Your task to perform on an android device: Search for "macbook" on ebay, select the first entry, and add it to the cart. Image 0: 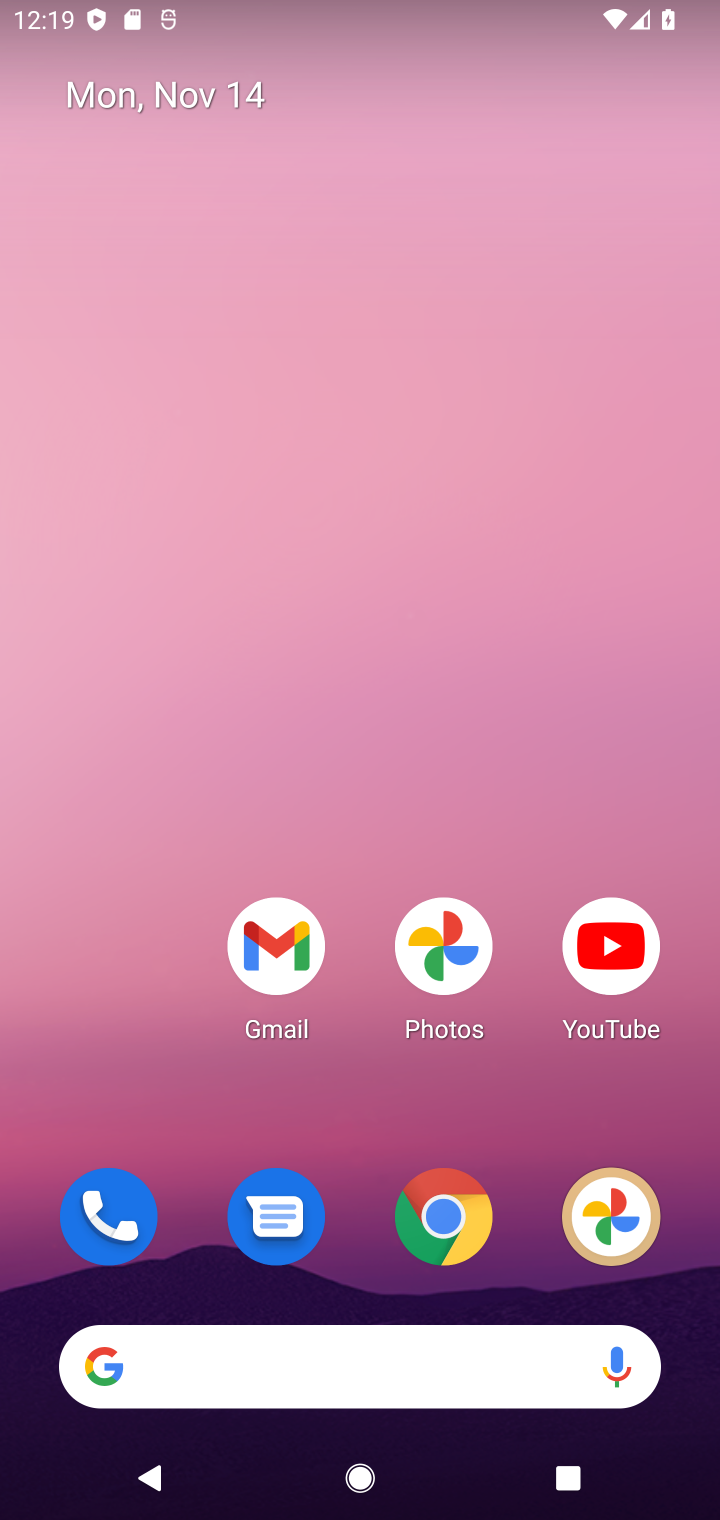
Step 0: click (466, 1212)
Your task to perform on an android device: Search for "macbook" on ebay, select the first entry, and add it to the cart. Image 1: 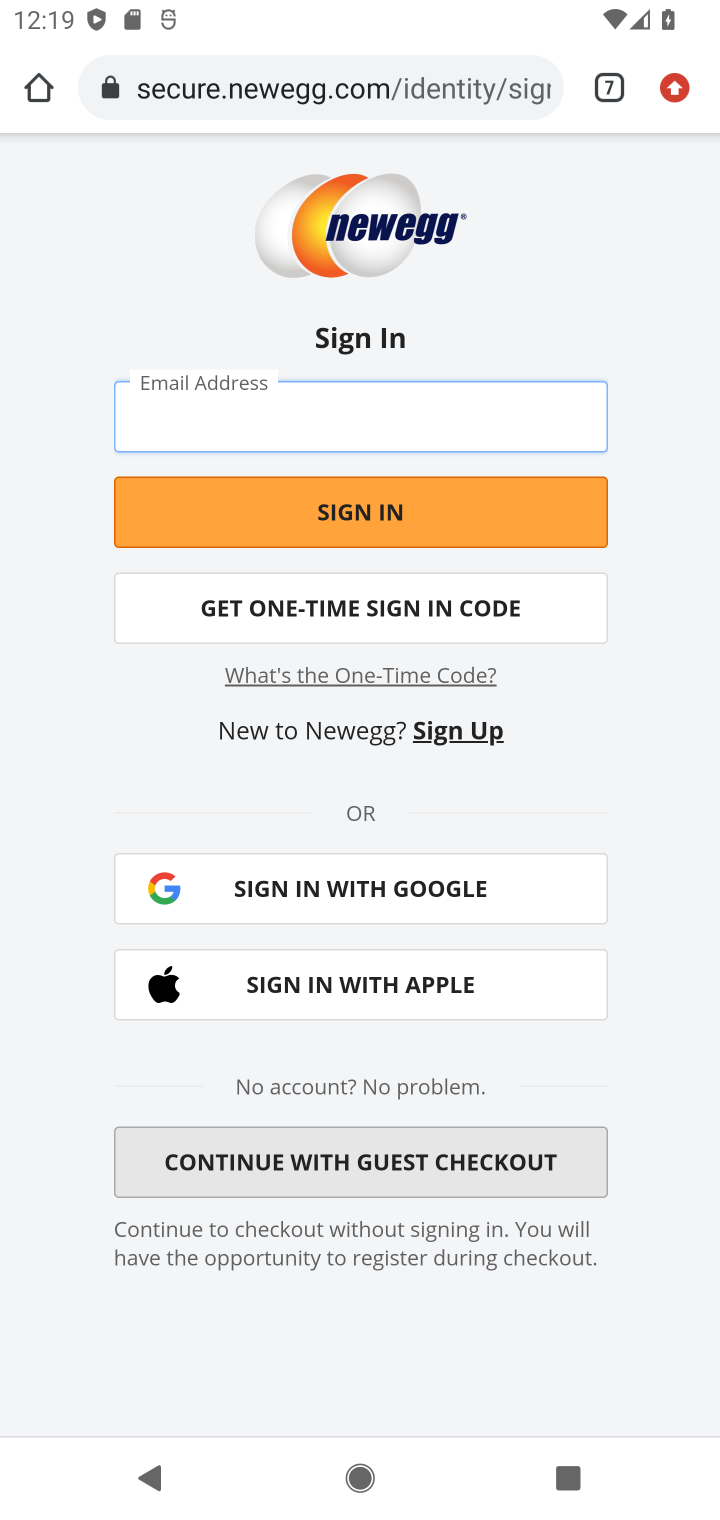
Step 1: click (608, 80)
Your task to perform on an android device: Search for "macbook" on ebay, select the first entry, and add it to the cart. Image 2: 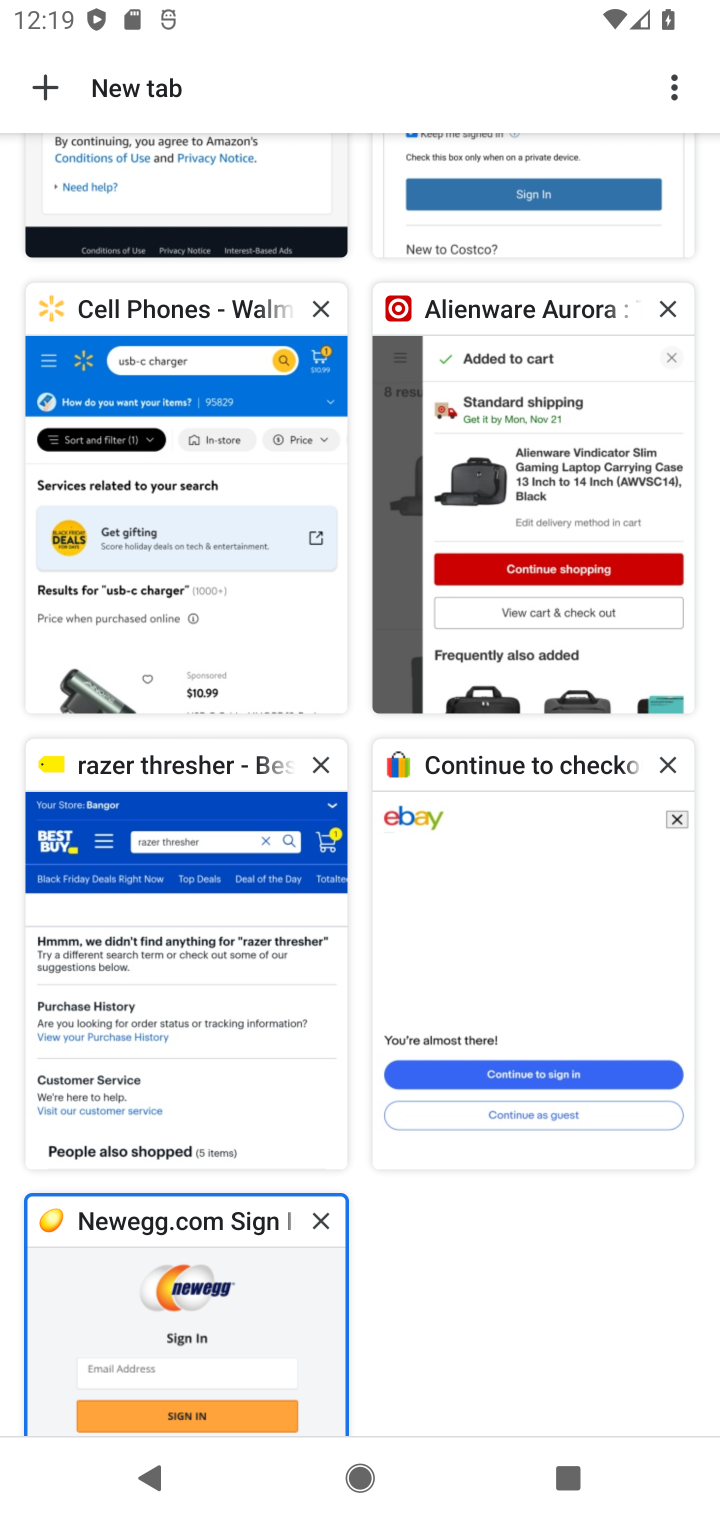
Step 2: click (496, 821)
Your task to perform on an android device: Search for "macbook" on ebay, select the first entry, and add it to the cart. Image 3: 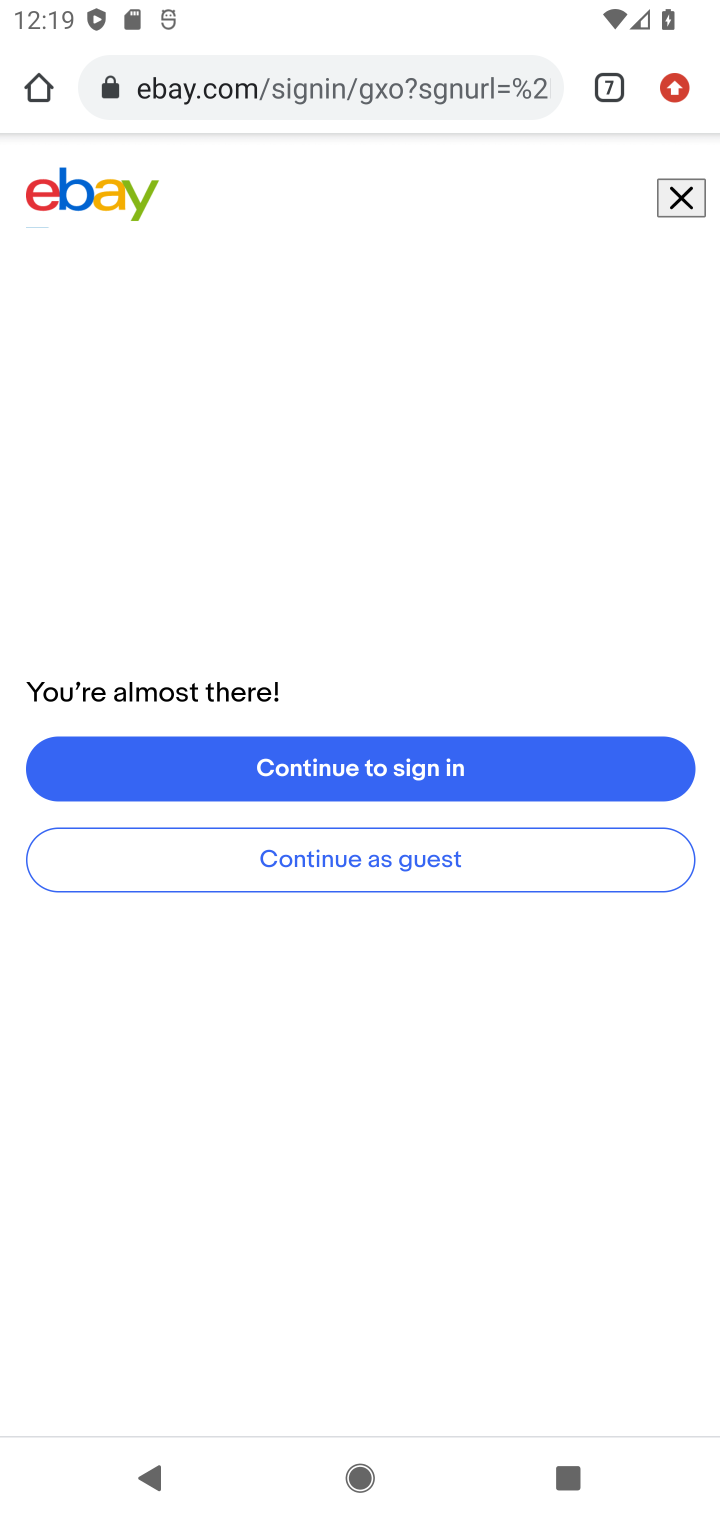
Step 3: click (693, 183)
Your task to perform on an android device: Search for "macbook" on ebay, select the first entry, and add it to the cart. Image 4: 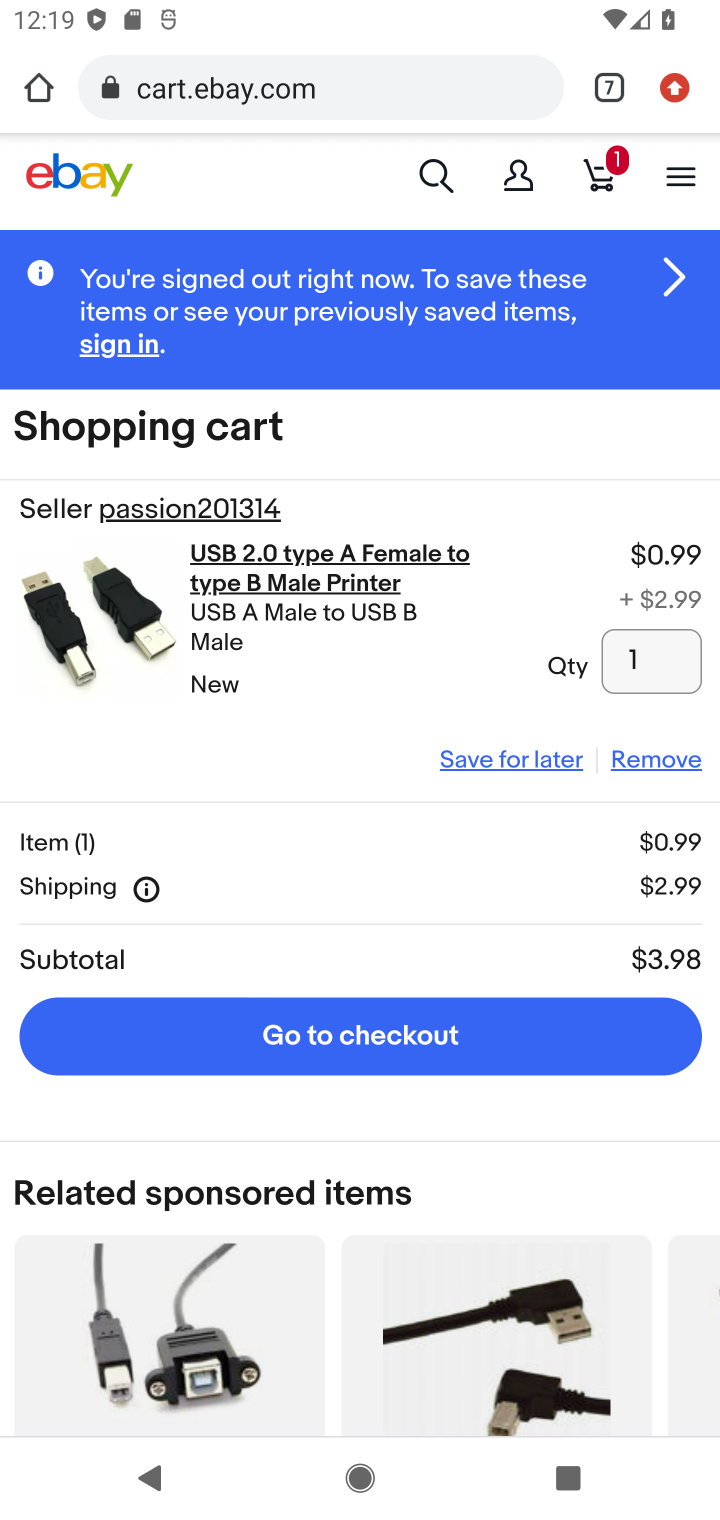
Step 4: click (437, 173)
Your task to perform on an android device: Search for "macbook" on ebay, select the first entry, and add it to the cart. Image 5: 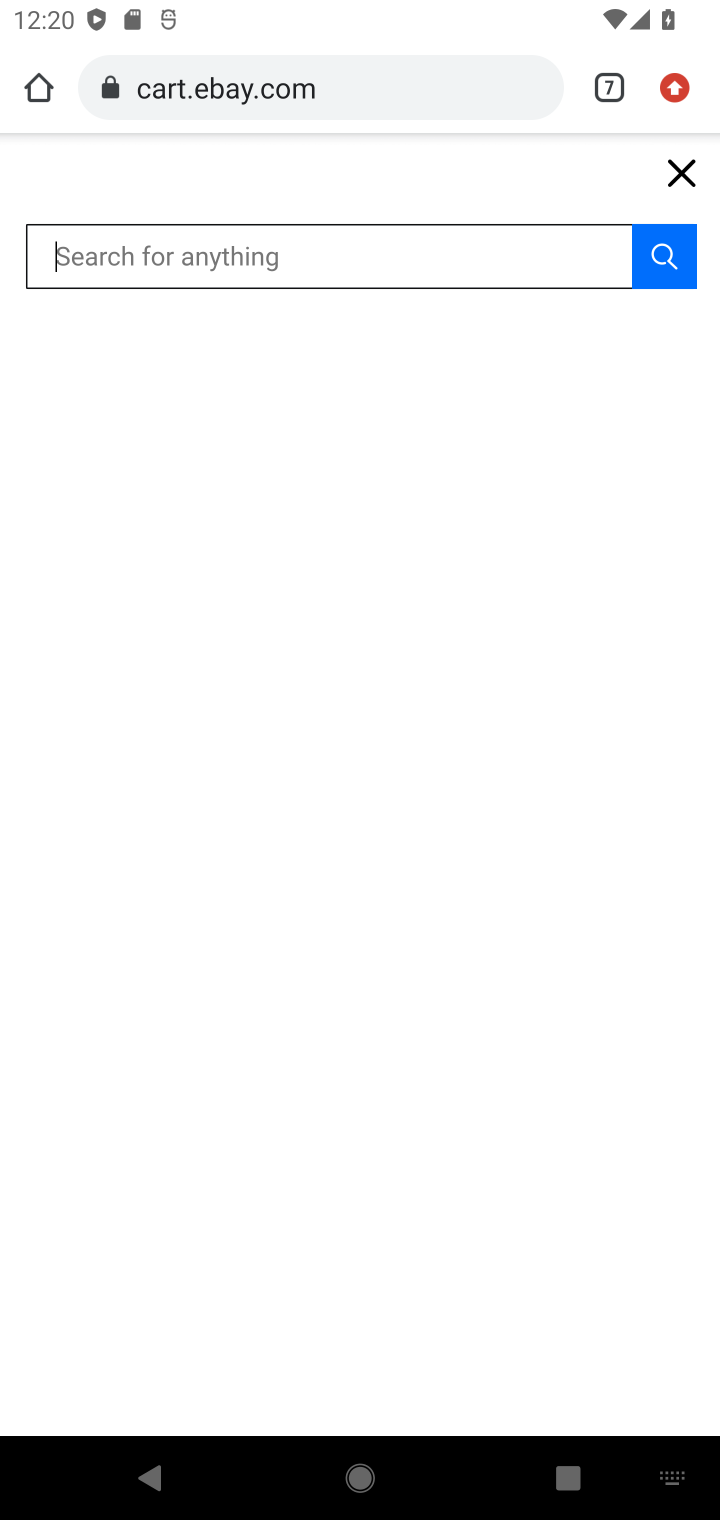
Step 5: type "macbook"
Your task to perform on an android device: Search for "macbook" on ebay, select the first entry, and add it to the cart. Image 6: 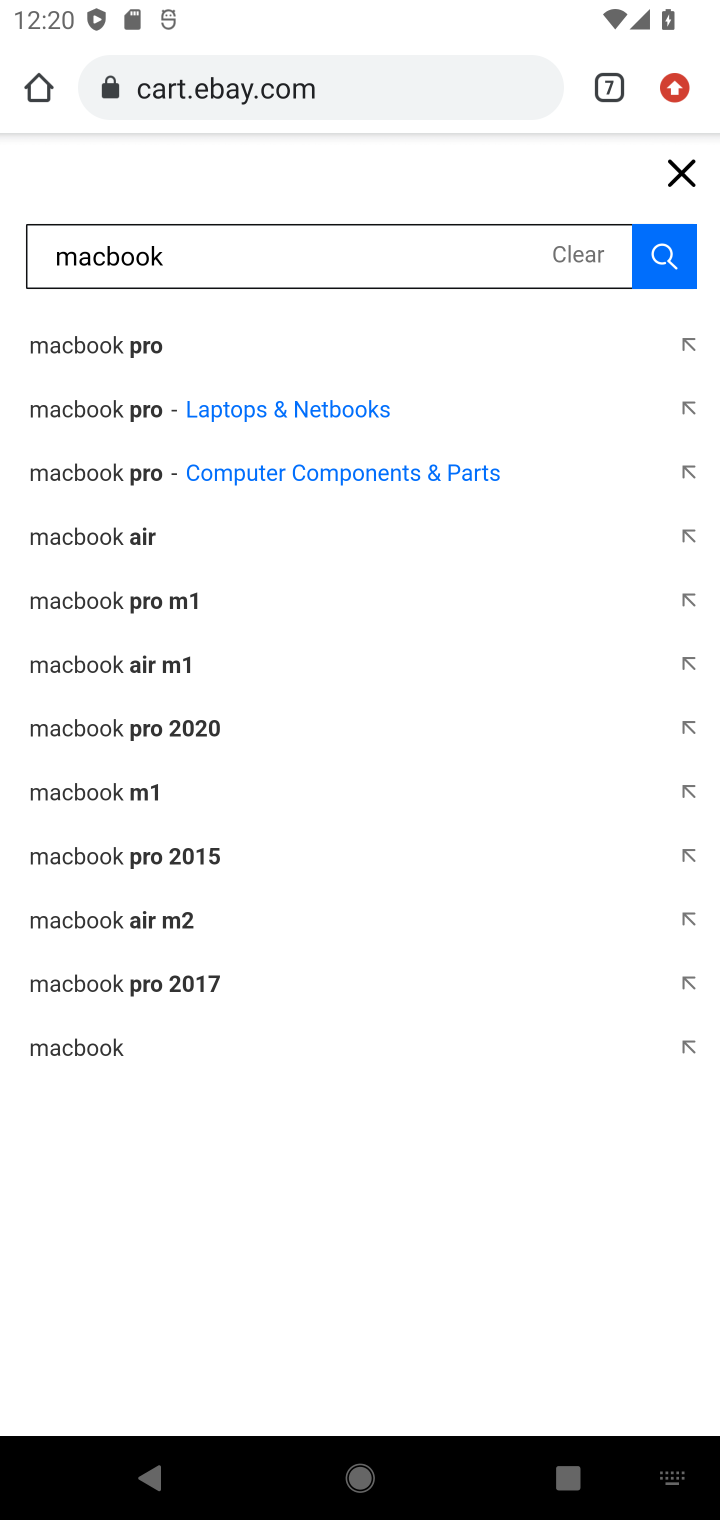
Step 6: click (115, 420)
Your task to perform on an android device: Search for "macbook" on ebay, select the first entry, and add it to the cart. Image 7: 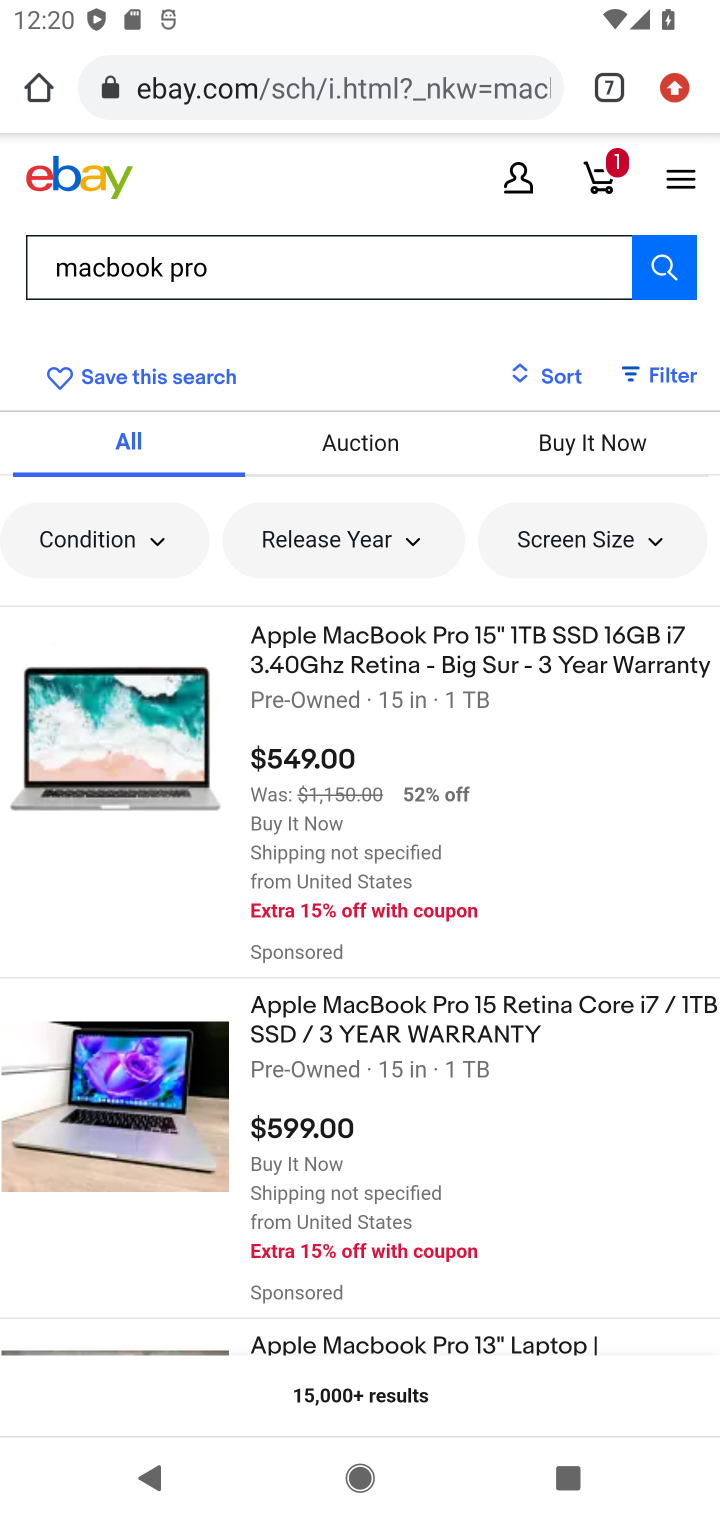
Step 7: click (417, 660)
Your task to perform on an android device: Search for "macbook" on ebay, select the first entry, and add it to the cart. Image 8: 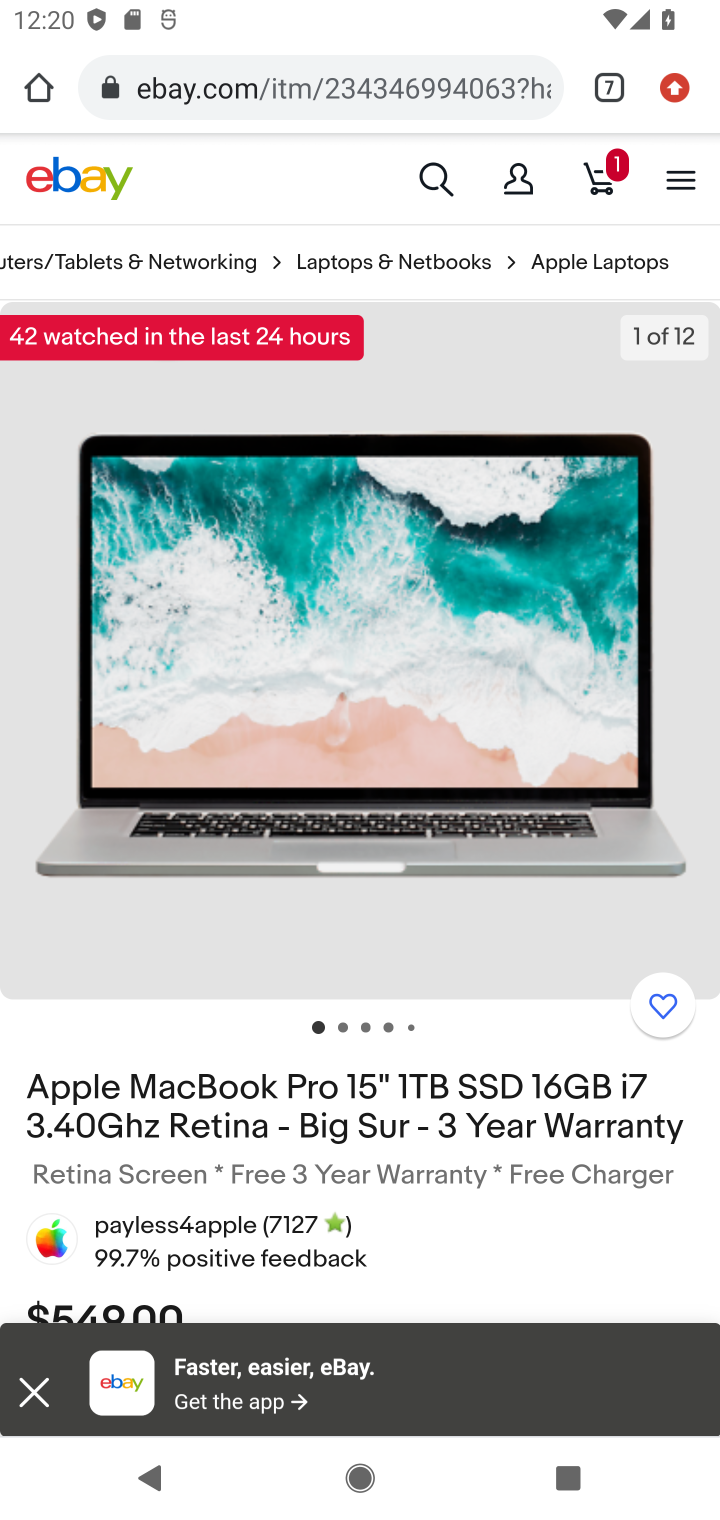
Step 8: drag from (495, 1255) to (511, 329)
Your task to perform on an android device: Search for "macbook" on ebay, select the first entry, and add it to the cart. Image 9: 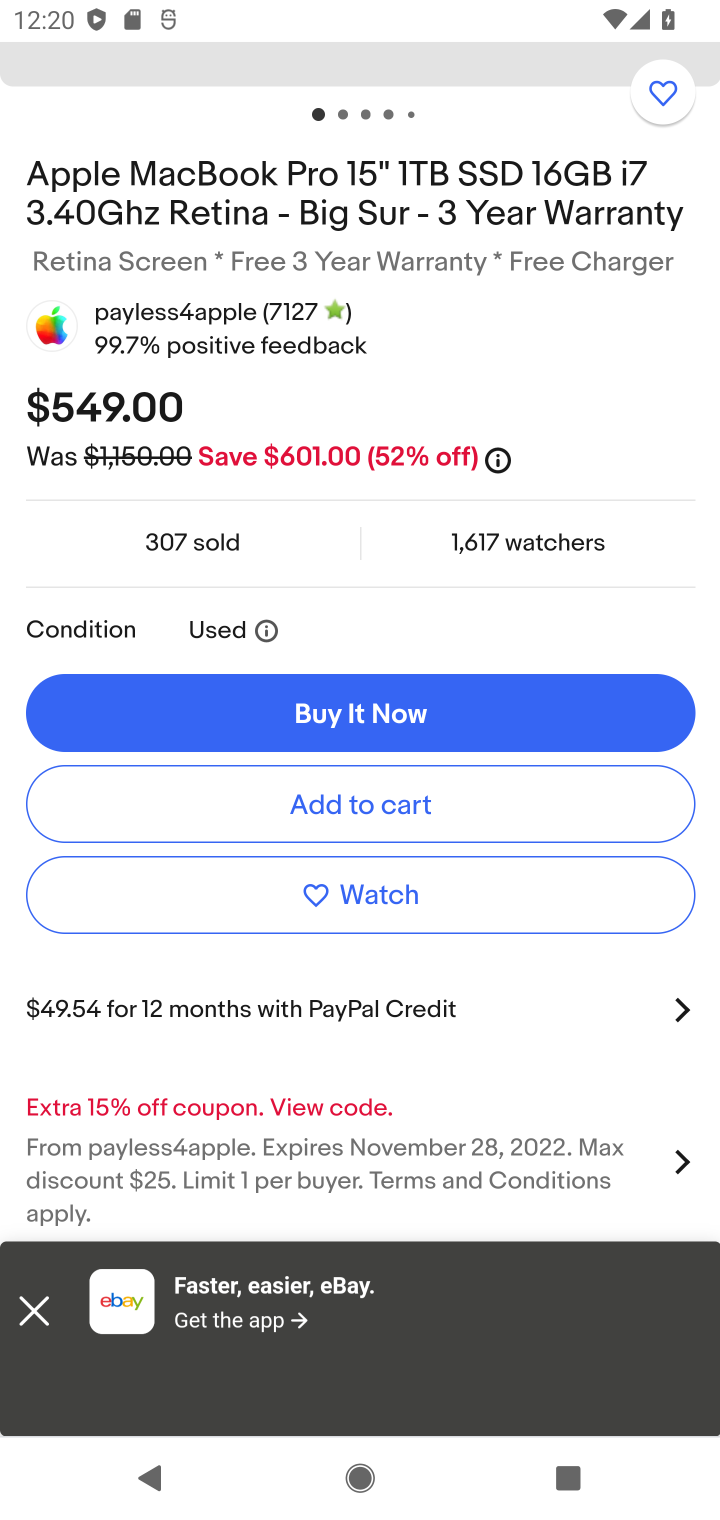
Step 9: click (360, 799)
Your task to perform on an android device: Search for "macbook" on ebay, select the first entry, and add it to the cart. Image 10: 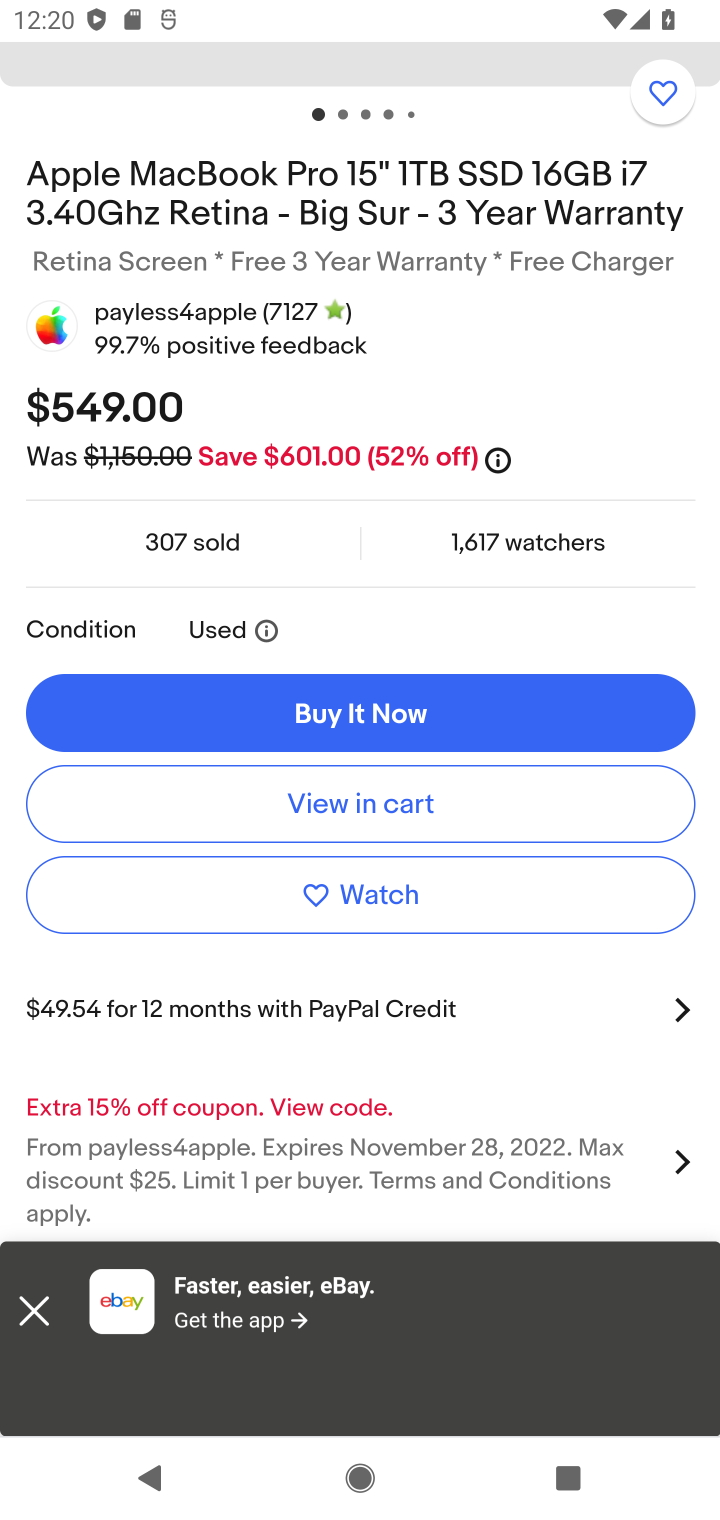
Step 10: task complete